Your task to perform on an android device: Find coffee shops on Maps Image 0: 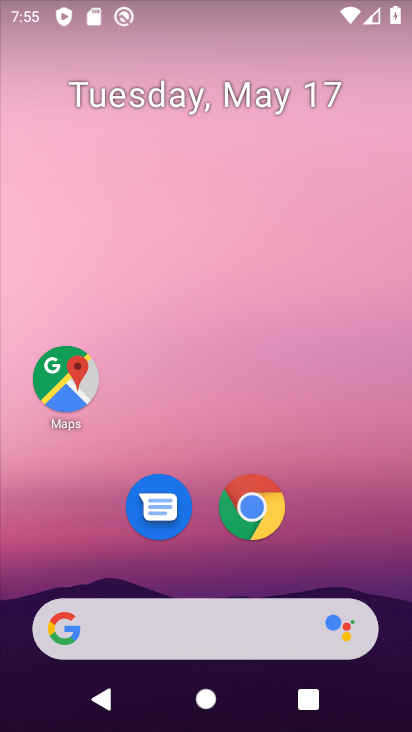
Step 0: click (119, 391)
Your task to perform on an android device: Find coffee shops on Maps Image 1: 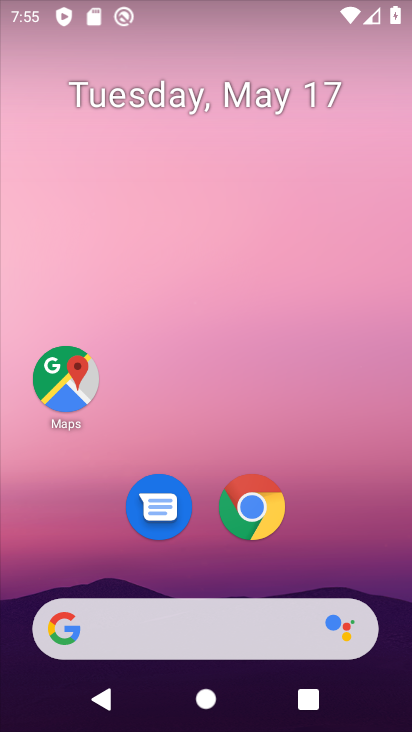
Step 1: click (65, 380)
Your task to perform on an android device: Find coffee shops on Maps Image 2: 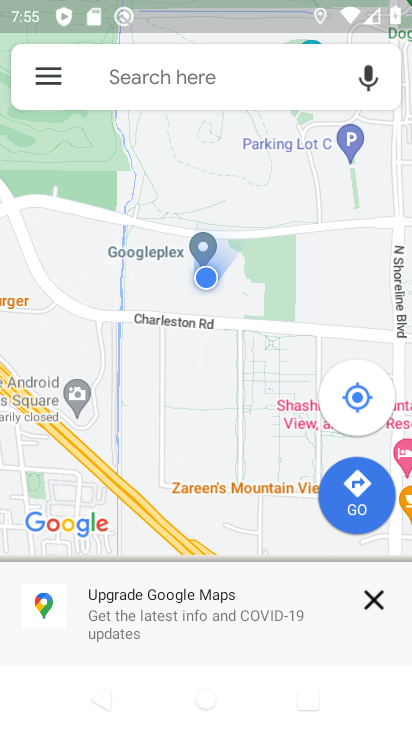
Step 2: click (127, 83)
Your task to perform on an android device: Find coffee shops on Maps Image 3: 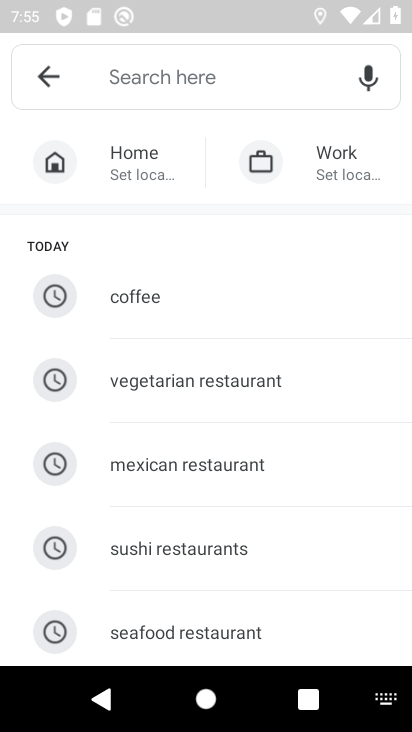
Step 3: type "coffee shops"
Your task to perform on an android device: Find coffee shops on Maps Image 4: 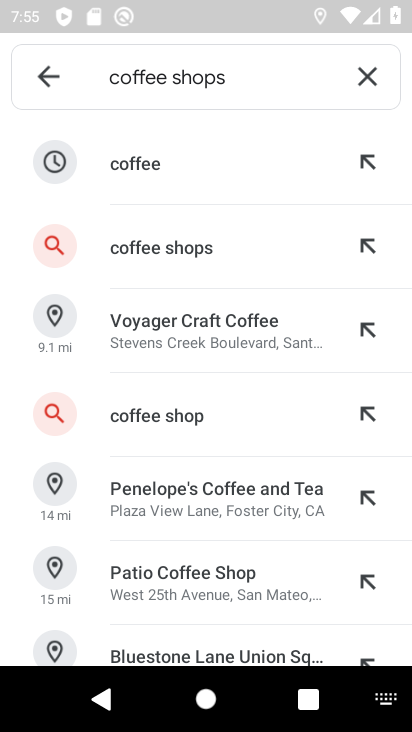
Step 4: click (176, 255)
Your task to perform on an android device: Find coffee shops on Maps Image 5: 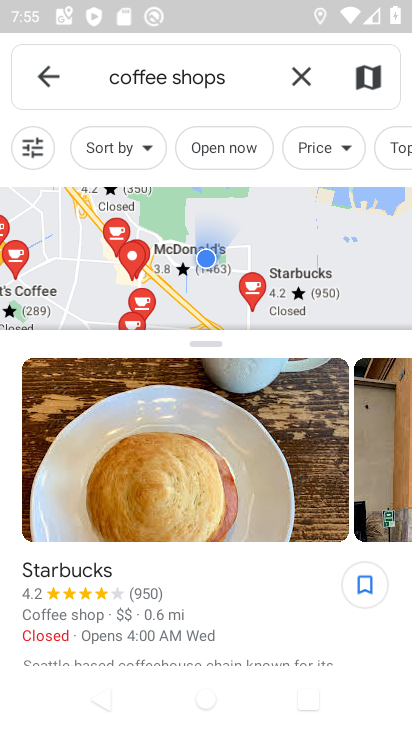
Step 5: task complete